Your task to perform on an android device: turn notification dots on Image 0: 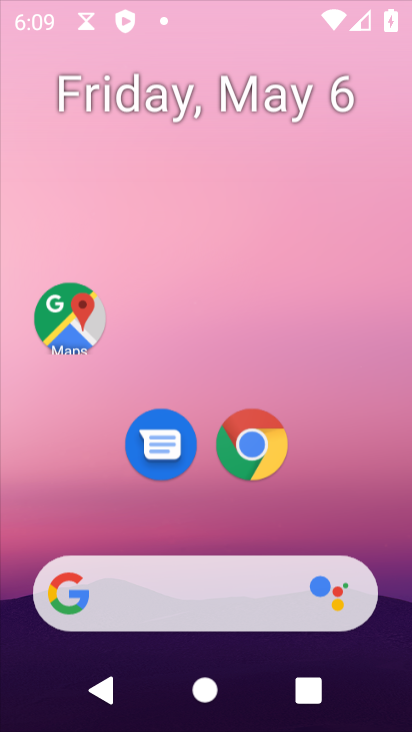
Step 0: click (237, 110)
Your task to perform on an android device: turn notification dots on Image 1: 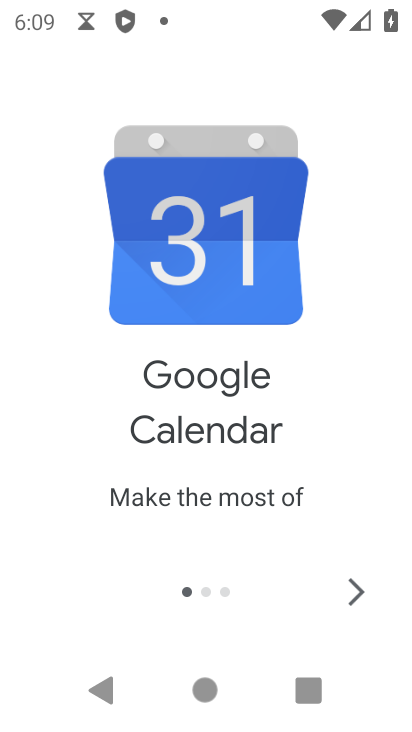
Step 1: press home button
Your task to perform on an android device: turn notification dots on Image 2: 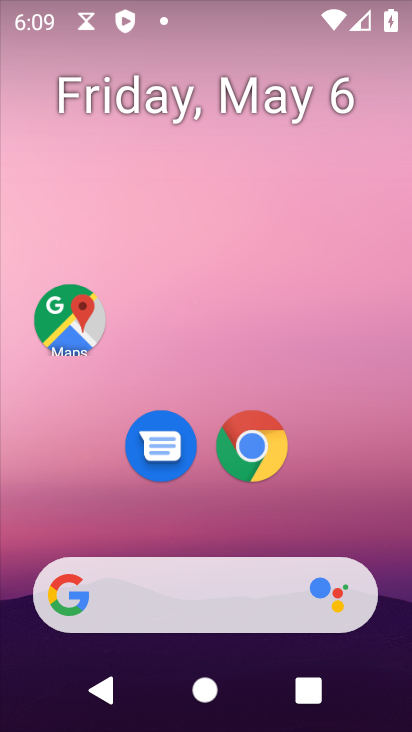
Step 2: drag from (342, 502) to (200, 170)
Your task to perform on an android device: turn notification dots on Image 3: 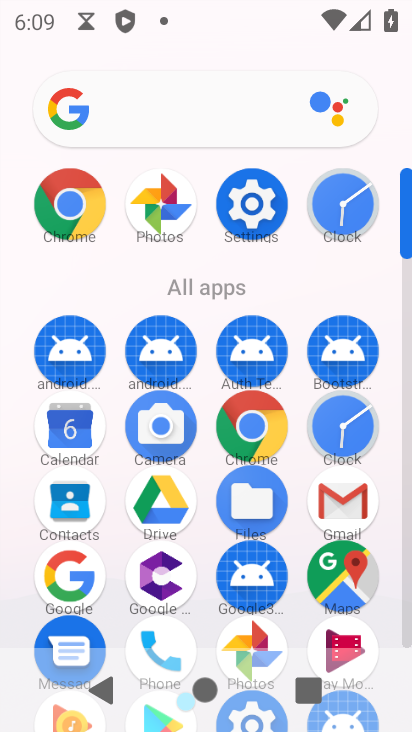
Step 3: click (257, 204)
Your task to perform on an android device: turn notification dots on Image 4: 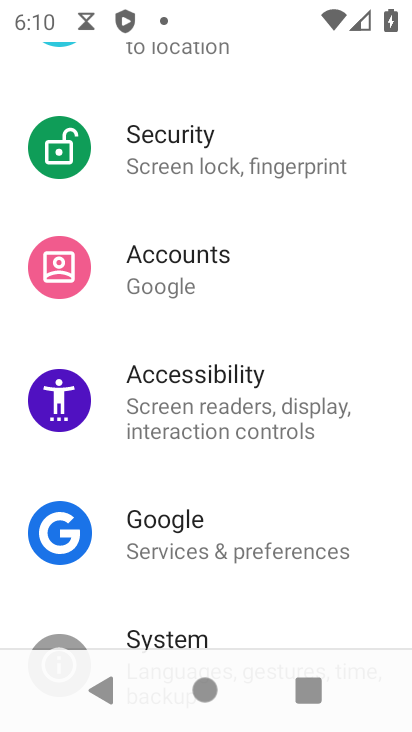
Step 4: drag from (277, 158) to (247, 561)
Your task to perform on an android device: turn notification dots on Image 5: 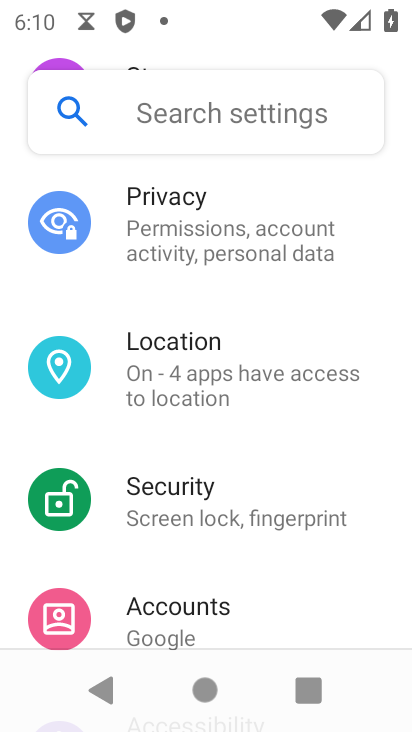
Step 5: drag from (275, 282) to (238, 630)
Your task to perform on an android device: turn notification dots on Image 6: 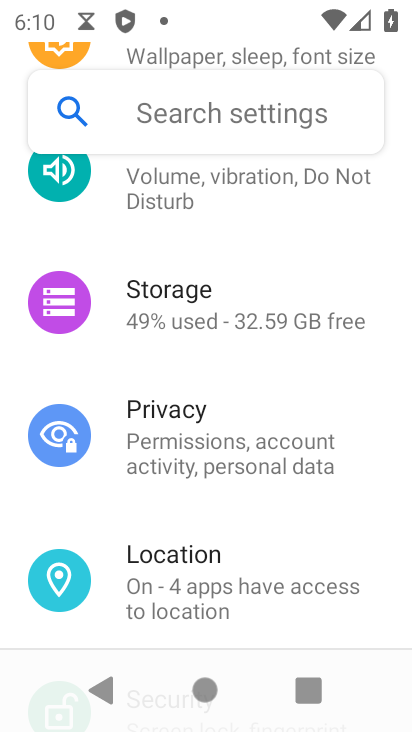
Step 6: drag from (263, 283) to (228, 565)
Your task to perform on an android device: turn notification dots on Image 7: 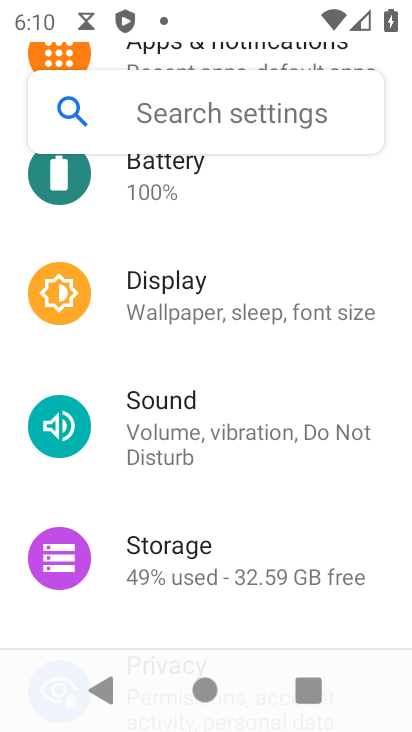
Step 7: drag from (351, 214) to (336, 484)
Your task to perform on an android device: turn notification dots on Image 8: 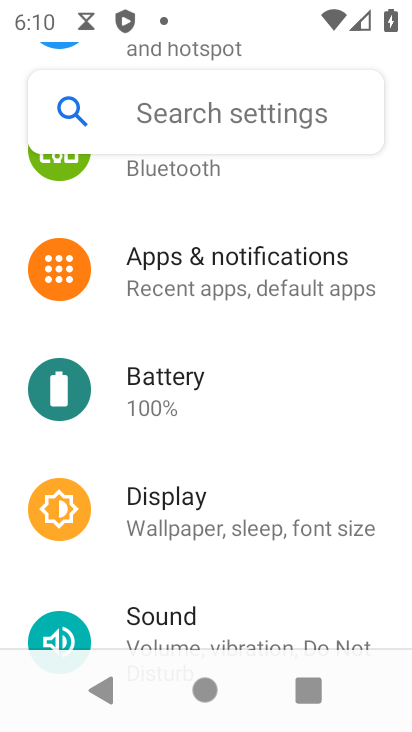
Step 8: click (233, 284)
Your task to perform on an android device: turn notification dots on Image 9: 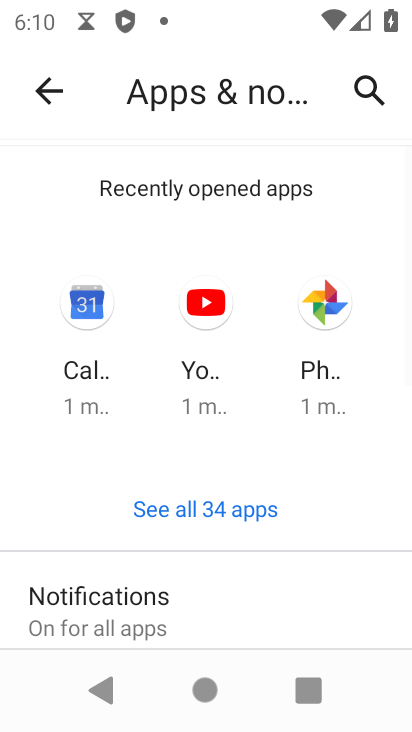
Step 9: drag from (309, 566) to (270, 202)
Your task to perform on an android device: turn notification dots on Image 10: 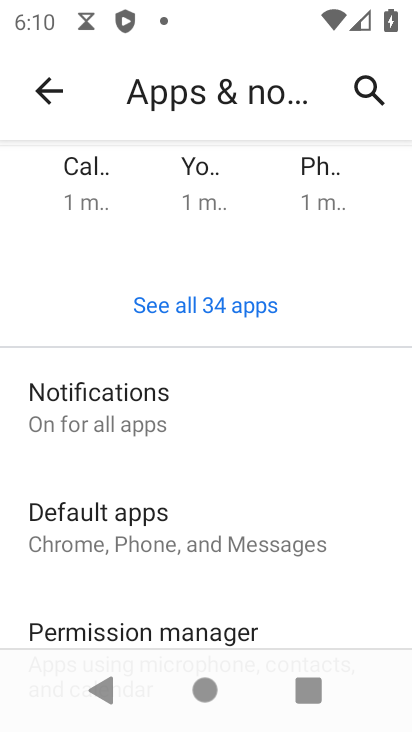
Step 10: click (113, 412)
Your task to perform on an android device: turn notification dots on Image 11: 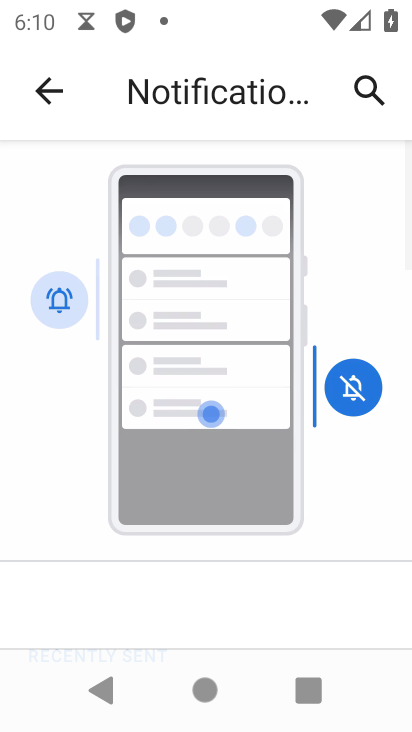
Step 11: drag from (226, 580) to (266, 264)
Your task to perform on an android device: turn notification dots on Image 12: 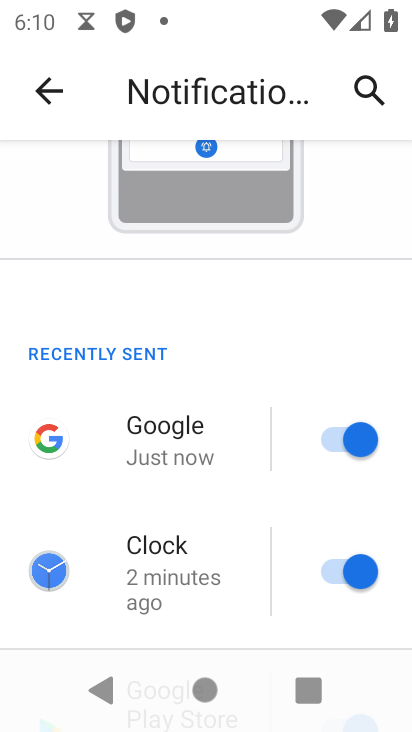
Step 12: drag from (177, 577) to (212, 302)
Your task to perform on an android device: turn notification dots on Image 13: 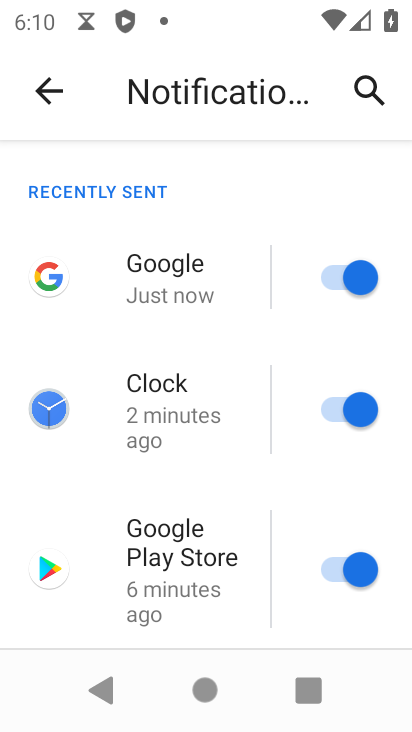
Step 13: drag from (190, 606) to (175, 230)
Your task to perform on an android device: turn notification dots on Image 14: 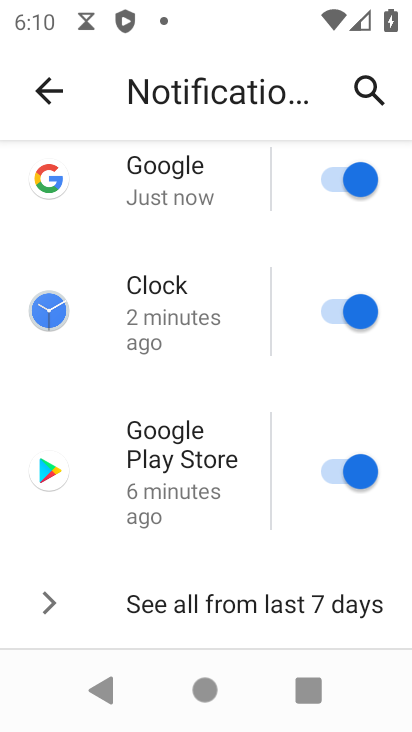
Step 14: drag from (196, 617) to (172, 239)
Your task to perform on an android device: turn notification dots on Image 15: 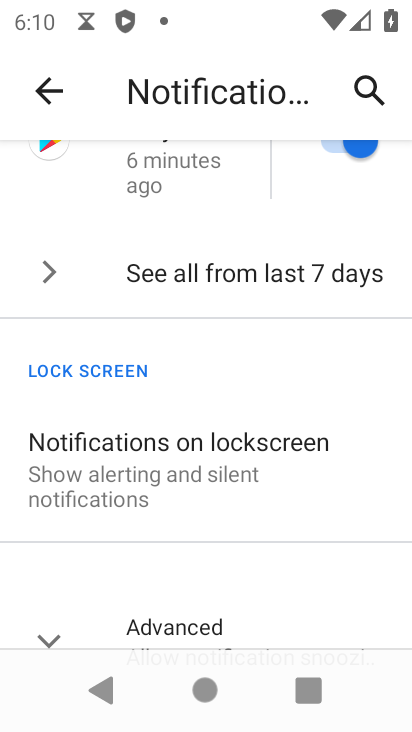
Step 15: drag from (177, 566) to (250, 244)
Your task to perform on an android device: turn notification dots on Image 16: 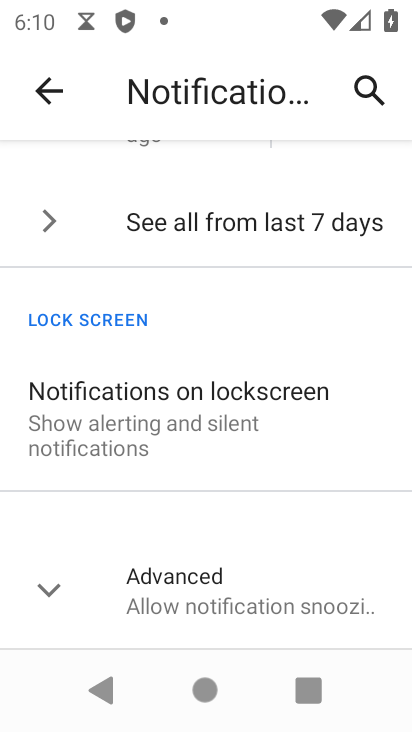
Step 16: click (140, 609)
Your task to perform on an android device: turn notification dots on Image 17: 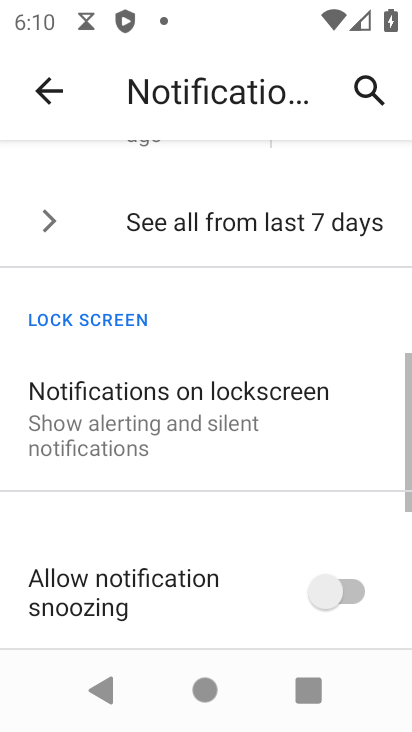
Step 17: task complete